Your task to perform on an android device: What is the recent news? Image 0: 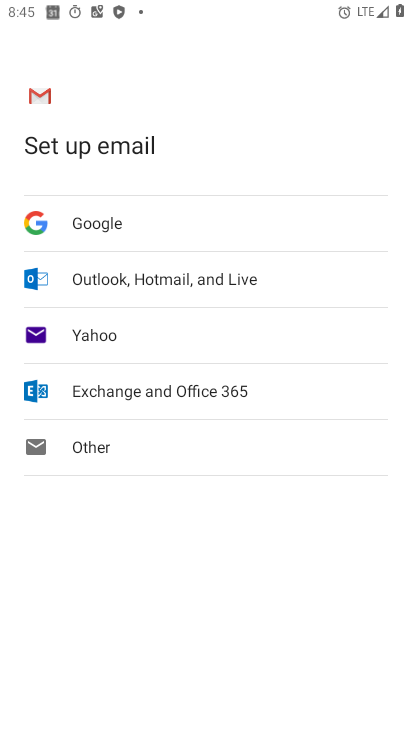
Step 0: press home button
Your task to perform on an android device: What is the recent news? Image 1: 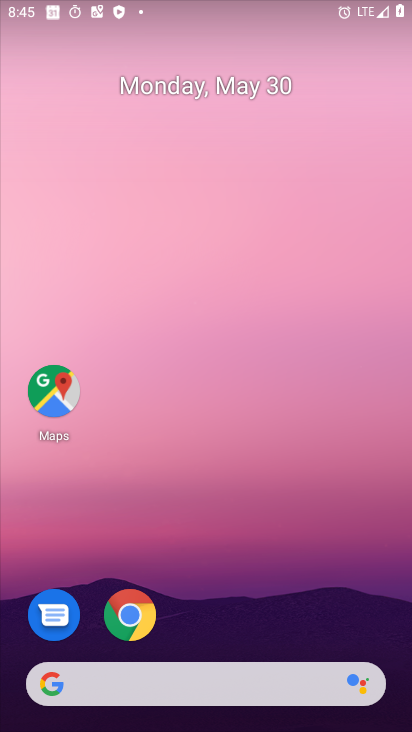
Step 1: drag from (304, 575) to (324, 210)
Your task to perform on an android device: What is the recent news? Image 2: 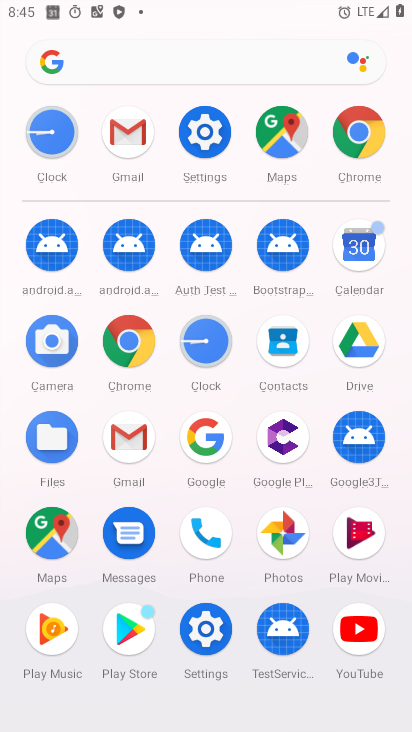
Step 2: click (355, 146)
Your task to perform on an android device: What is the recent news? Image 3: 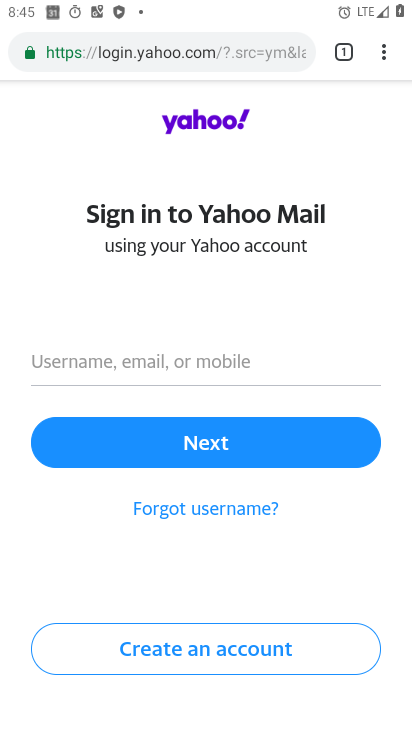
Step 3: task complete